Your task to perform on an android device: How much does a 2 bedroom apartment rent for in Houston? Image 0: 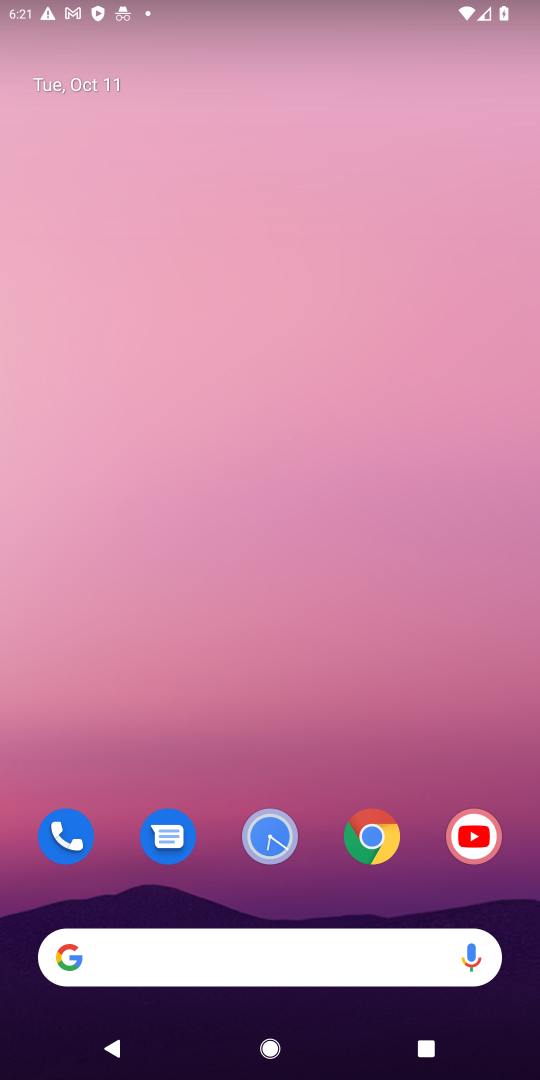
Step 0: click (378, 837)
Your task to perform on an android device: How much does a 2 bedroom apartment rent for in Houston? Image 1: 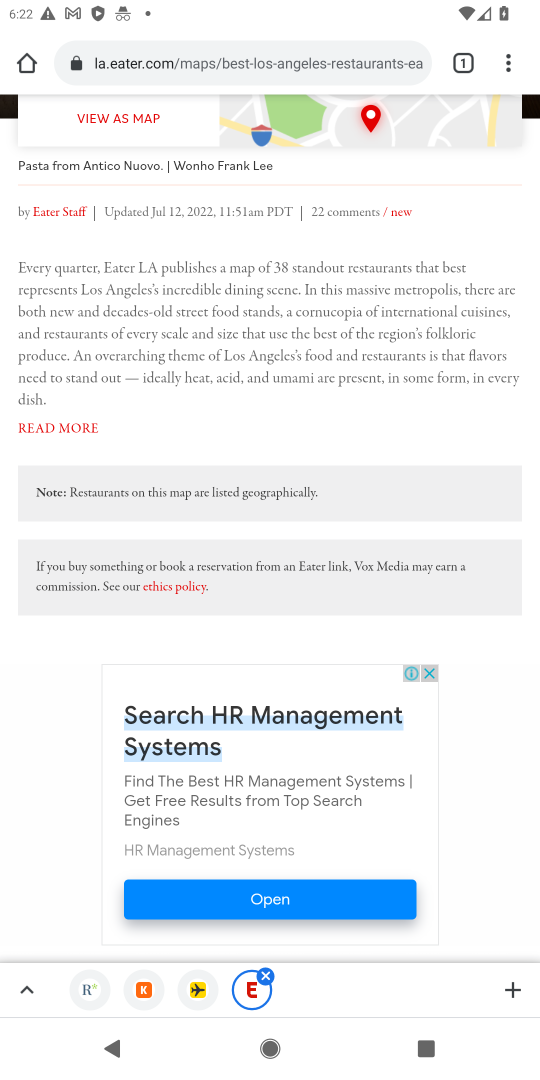
Step 1: click (267, 44)
Your task to perform on an android device: How much does a 2 bedroom apartment rent for in Houston? Image 2: 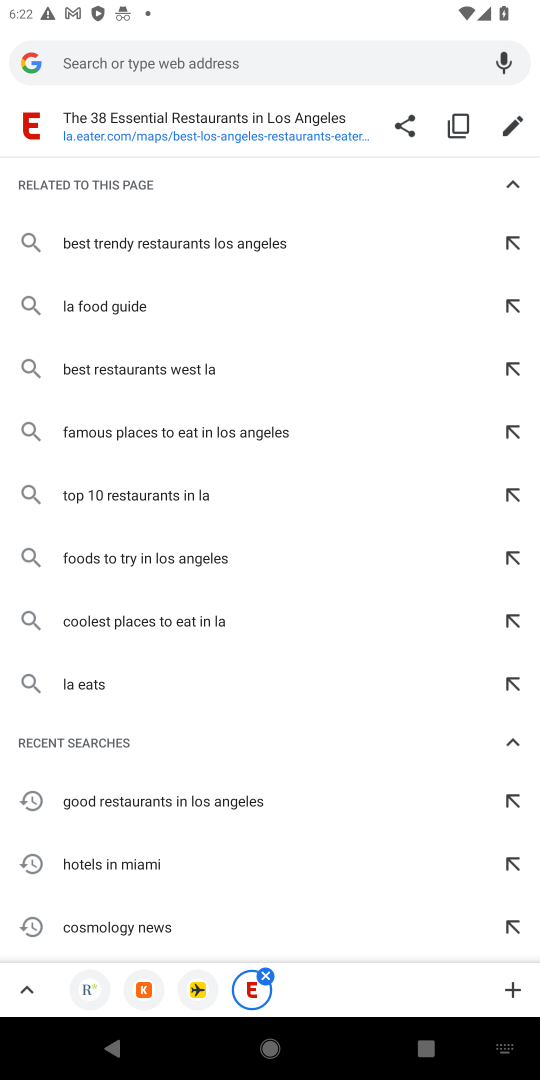
Step 2: type "2 bedroom apartment rent for in Houston?"
Your task to perform on an android device: How much does a 2 bedroom apartment rent for in Houston? Image 3: 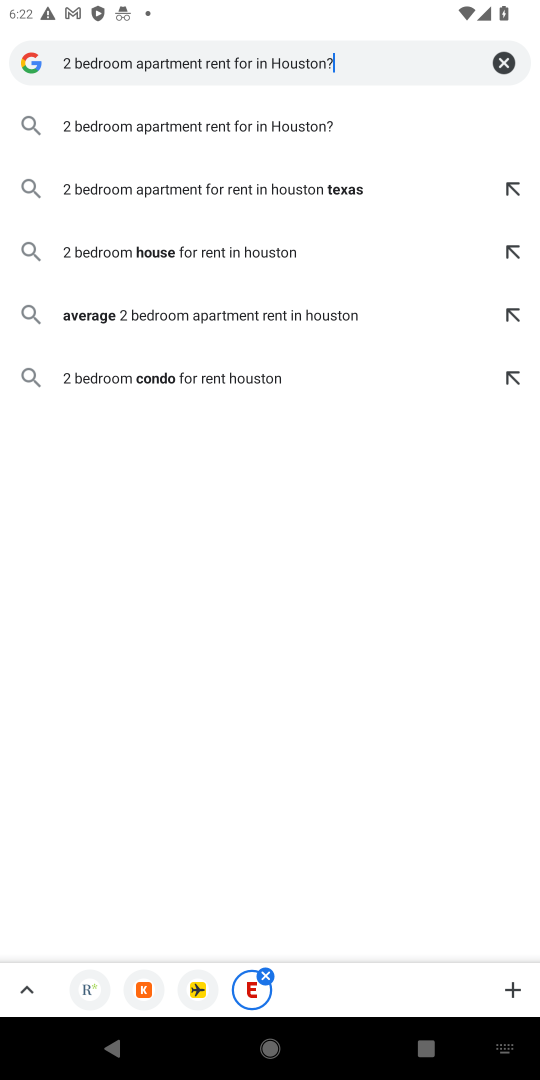
Step 3: click (148, 123)
Your task to perform on an android device: How much does a 2 bedroom apartment rent for in Houston? Image 4: 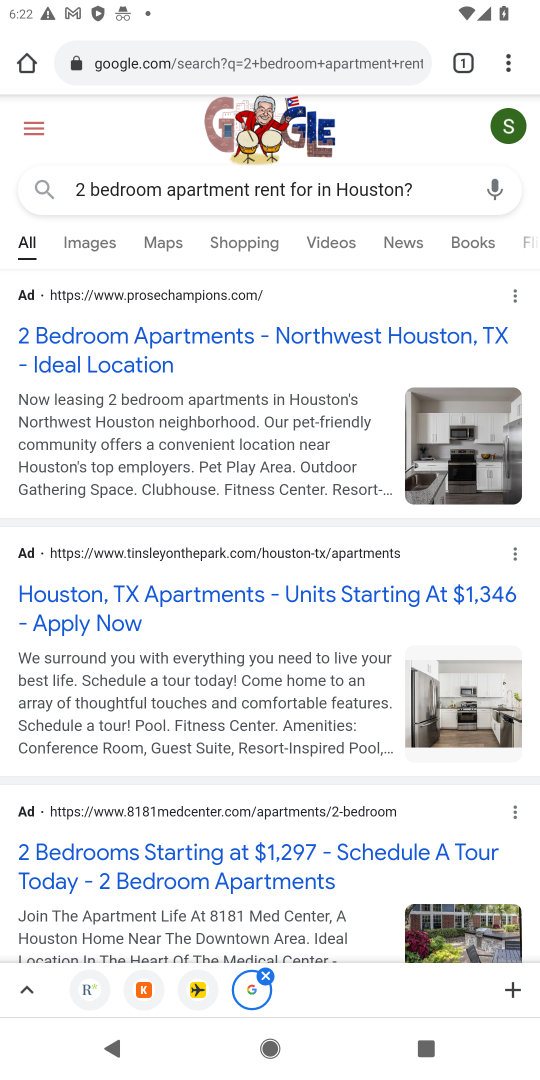
Step 4: click (112, 340)
Your task to perform on an android device: How much does a 2 bedroom apartment rent for in Houston? Image 5: 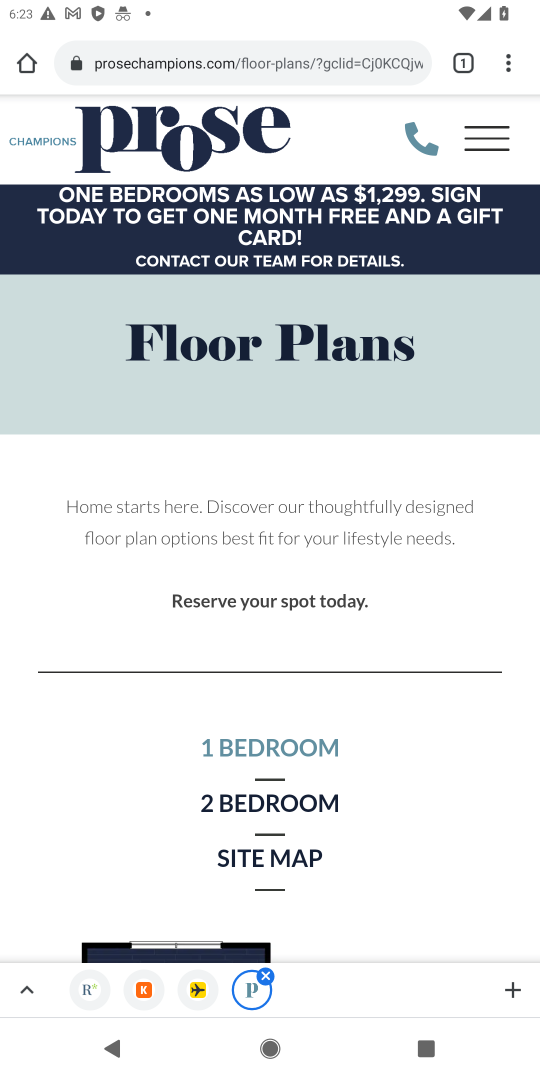
Step 5: click (246, 800)
Your task to perform on an android device: How much does a 2 bedroom apartment rent for in Houston? Image 6: 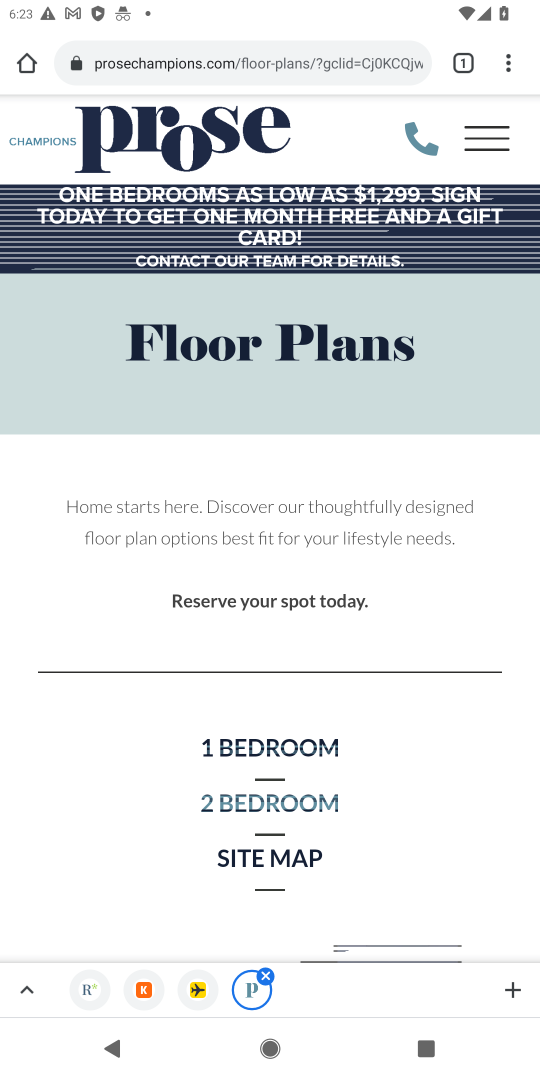
Step 6: task complete